Your task to perform on an android device: Open location settings Image 0: 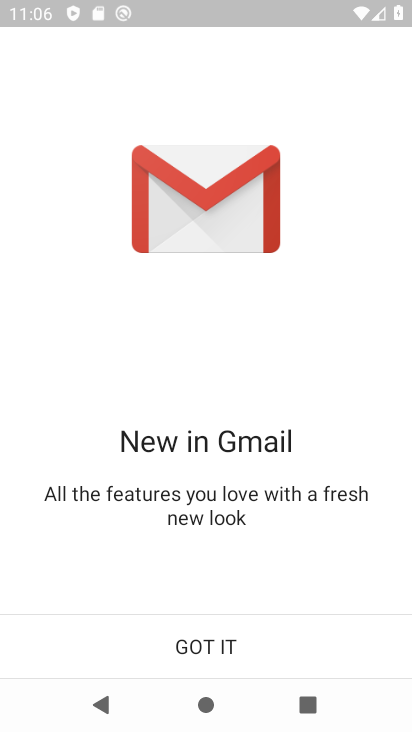
Step 0: press home button
Your task to perform on an android device: Open location settings Image 1: 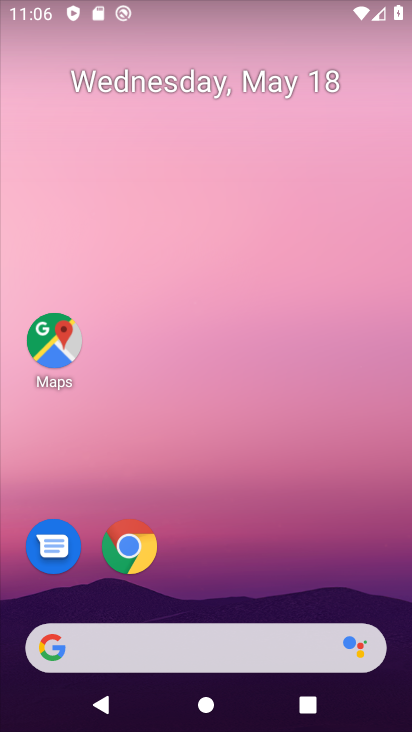
Step 1: click (42, 344)
Your task to perform on an android device: Open location settings Image 2: 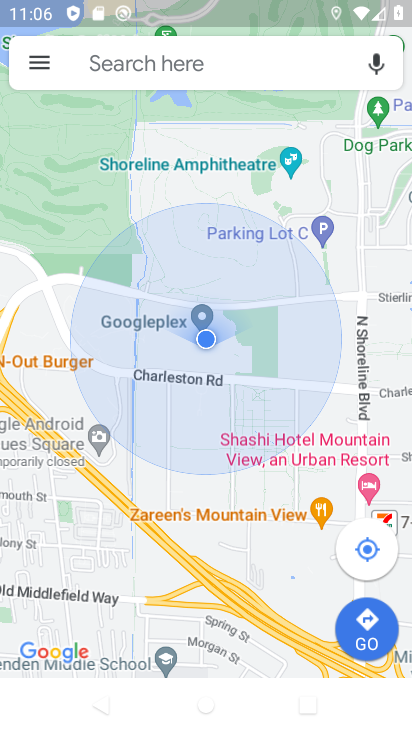
Step 2: press home button
Your task to perform on an android device: Open location settings Image 3: 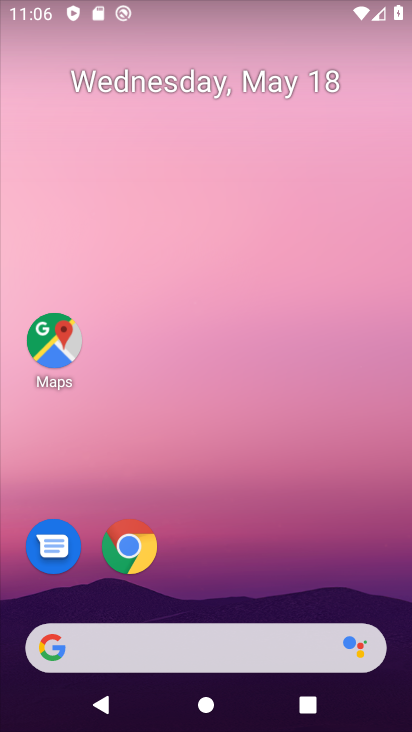
Step 3: drag from (254, 565) to (139, 196)
Your task to perform on an android device: Open location settings Image 4: 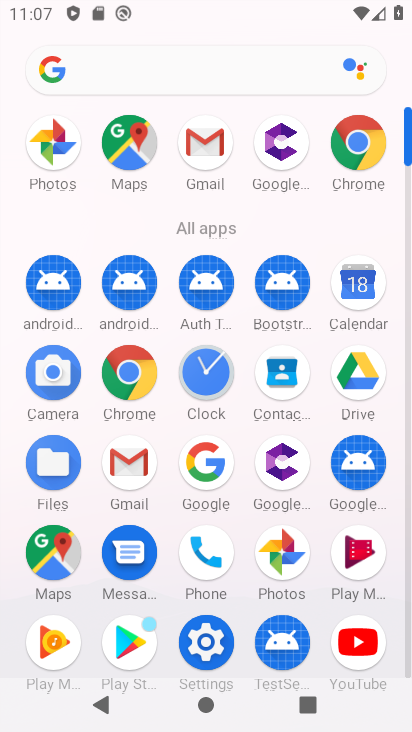
Step 4: click (191, 638)
Your task to perform on an android device: Open location settings Image 5: 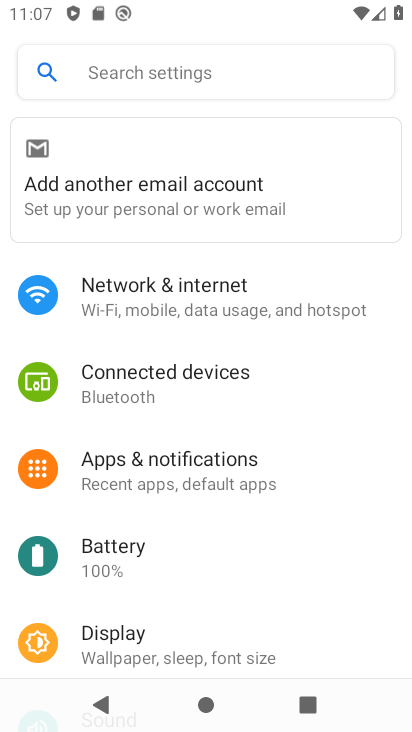
Step 5: drag from (168, 608) to (123, 294)
Your task to perform on an android device: Open location settings Image 6: 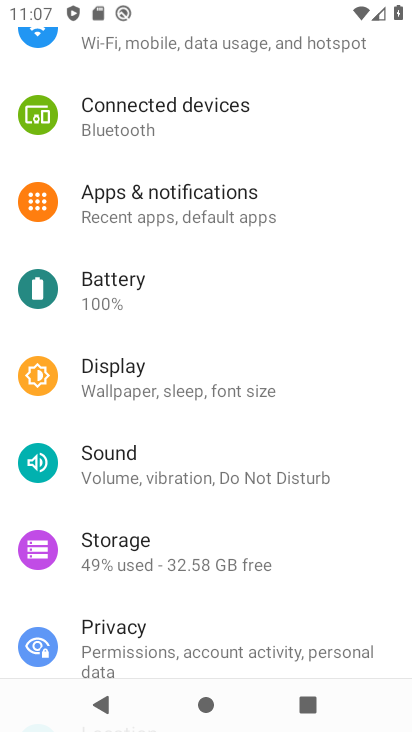
Step 6: drag from (247, 643) to (274, 455)
Your task to perform on an android device: Open location settings Image 7: 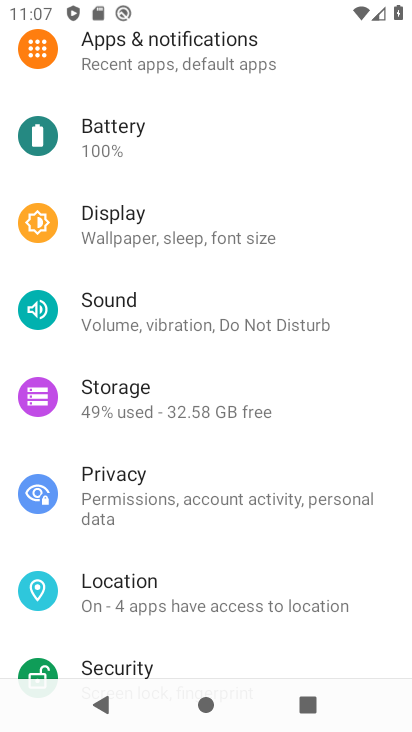
Step 7: click (157, 590)
Your task to perform on an android device: Open location settings Image 8: 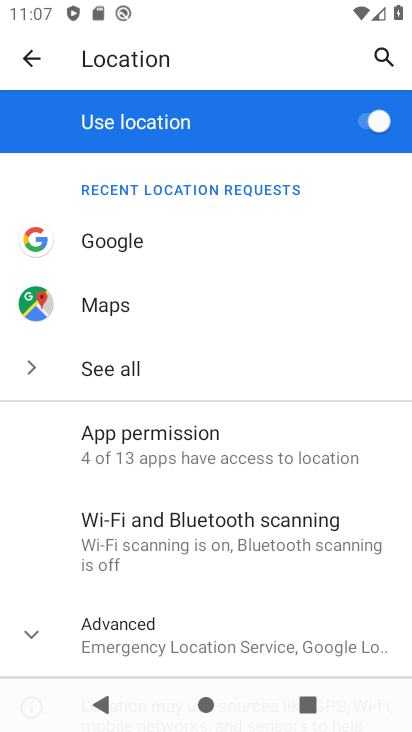
Step 8: task complete